Your task to perform on an android device: all mails in gmail Image 0: 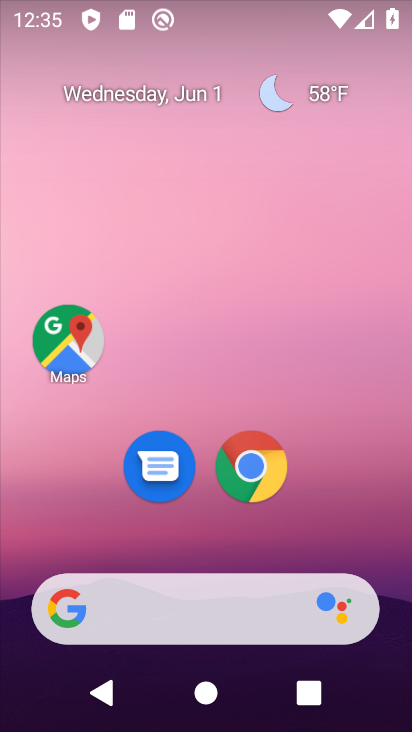
Step 0: drag from (167, 728) to (129, 0)
Your task to perform on an android device: all mails in gmail Image 1: 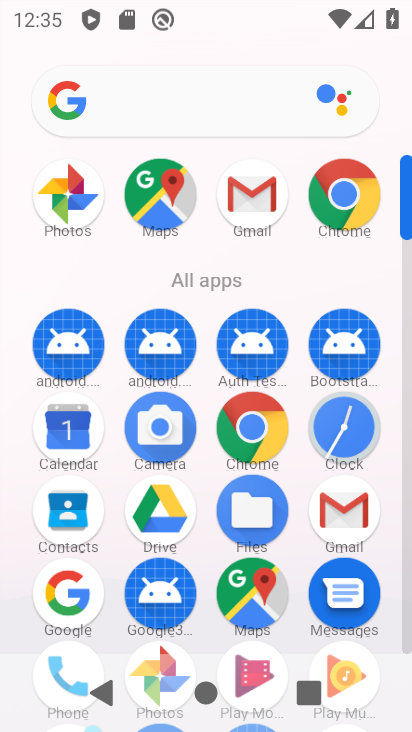
Step 1: click (240, 207)
Your task to perform on an android device: all mails in gmail Image 2: 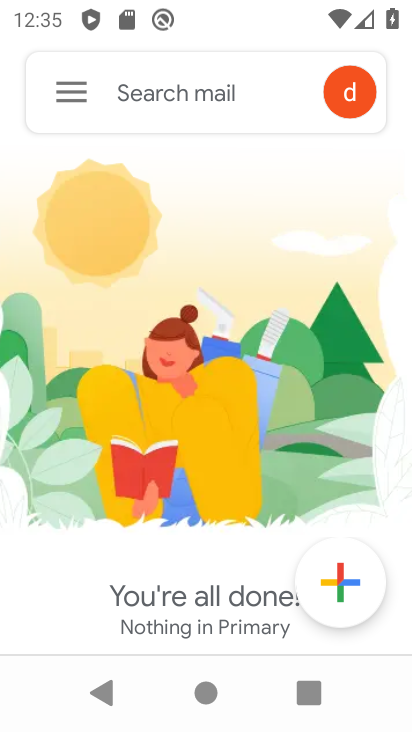
Step 2: click (56, 103)
Your task to perform on an android device: all mails in gmail Image 3: 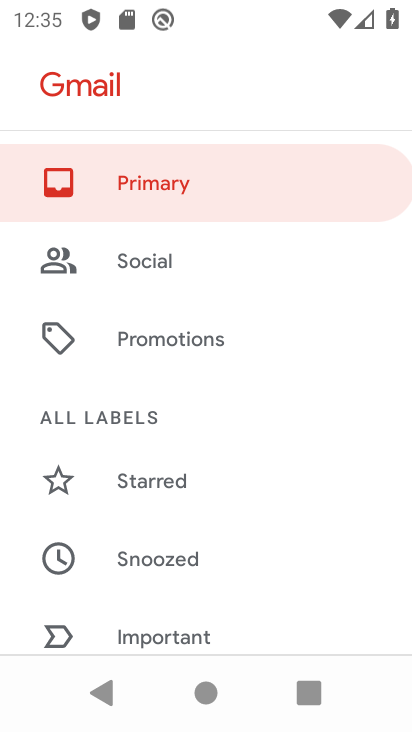
Step 3: drag from (272, 588) to (242, 173)
Your task to perform on an android device: all mails in gmail Image 4: 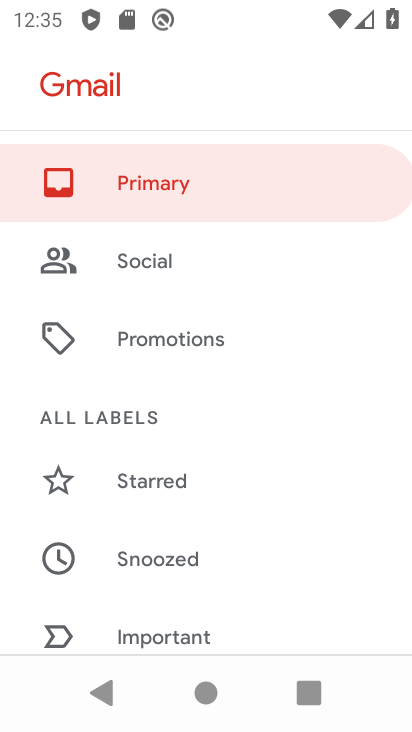
Step 4: drag from (261, 609) to (289, 183)
Your task to perform on an android device: all mails in gmail Image 5: 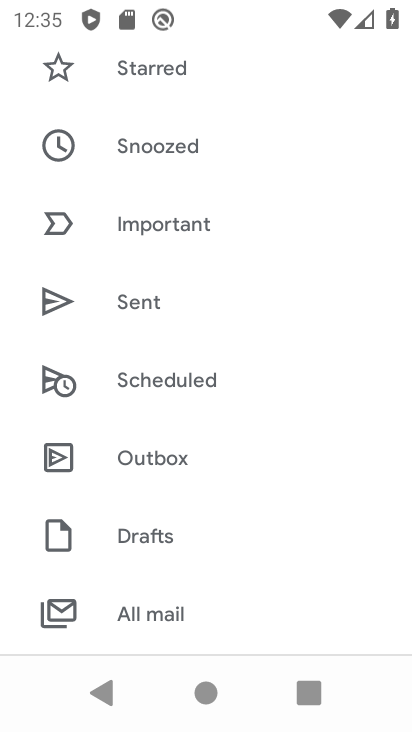
Step 5: click (153, 623)
Your task to perform on an android device: all mails in gmail Image 6: 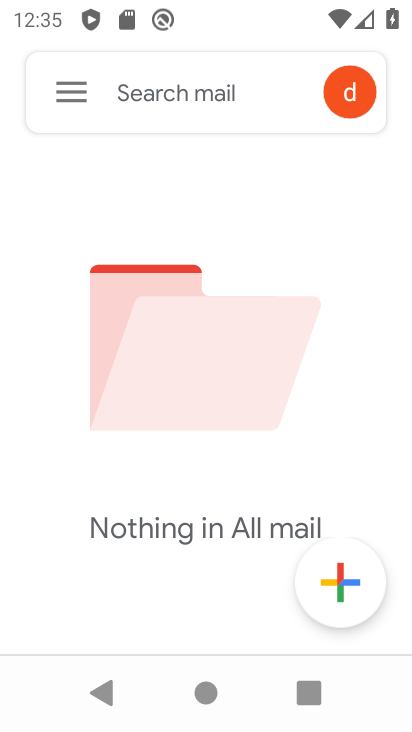
Step 6: task complete